Your task to perform on an android device: turn notification dots on Image 0: 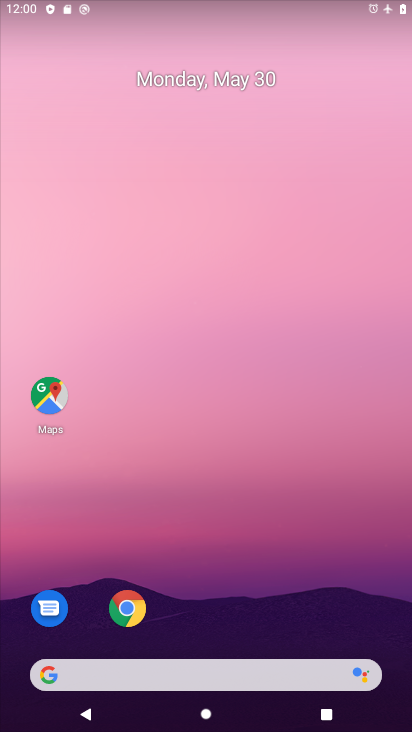
Step 0: drag from (188, 675) to (123, 28)
Your task to perform on an android device: turn notification dots on Image 1: 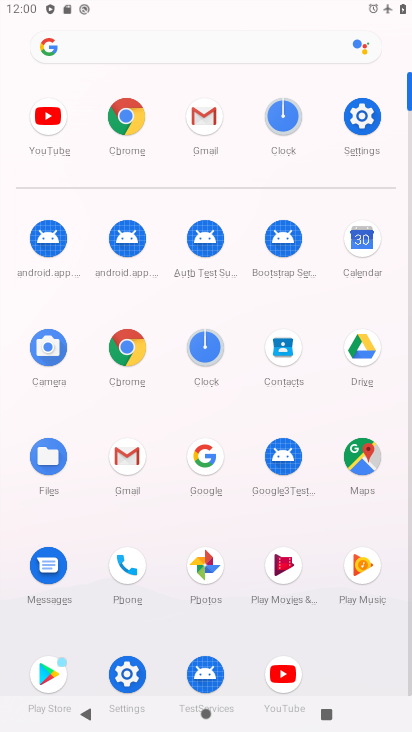
Step 1: click (128, 657)
Your task to perform on an android device: turn notification dots on Image 2: 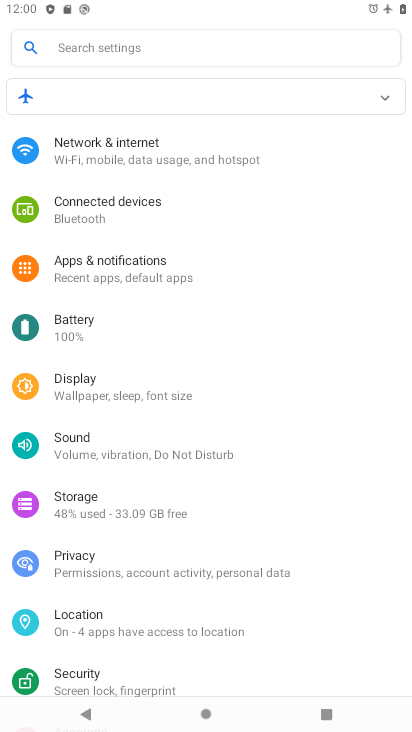
Step 2: click (184, 287)
Your task to perform on an android device: turn notification dots on Image 3: 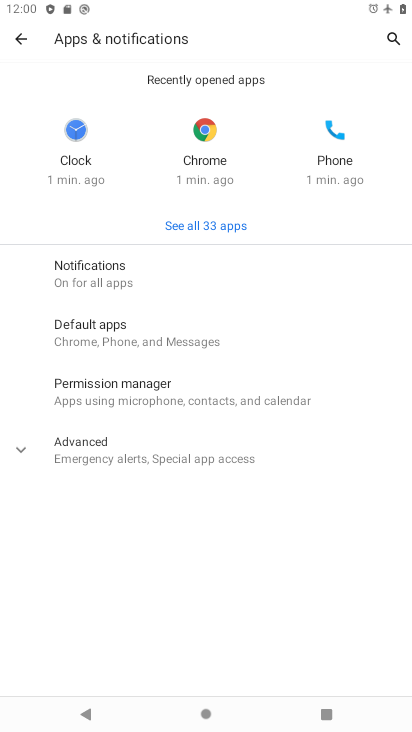
Step 3: drag from (145, 415) to (101, 189)
Your task to perform on an android device: turn notification dots on Image 4: 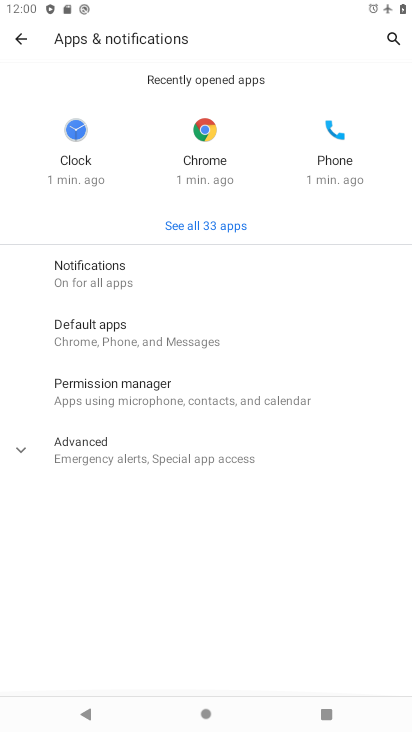
Step 4: click (79, 447)
Your task to perform on an android device: turn notification dots on Image 5: 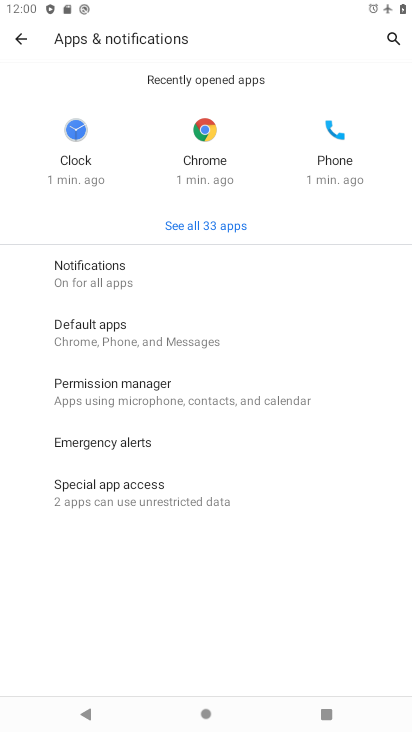
Step 5: drag from (157, 531) to (115, 229)
Your task to perform on an android device: turn notification dots on Image 6: 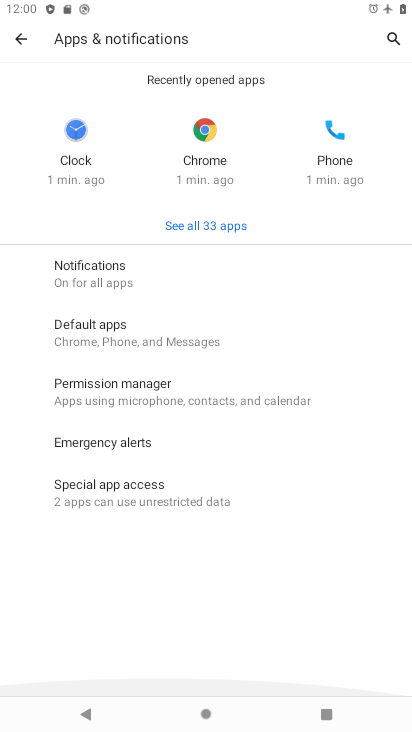
Step 6: click (115, 253)
Your task to perform on an android device: turn notification dots on Image 7: 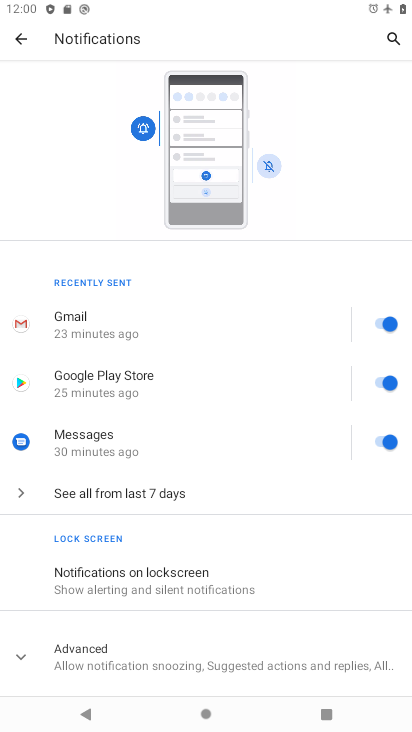
Step 7: drag from (213, 530) to (182, 116)
Your task to perform on an android device: turn notification dots on Image 8: 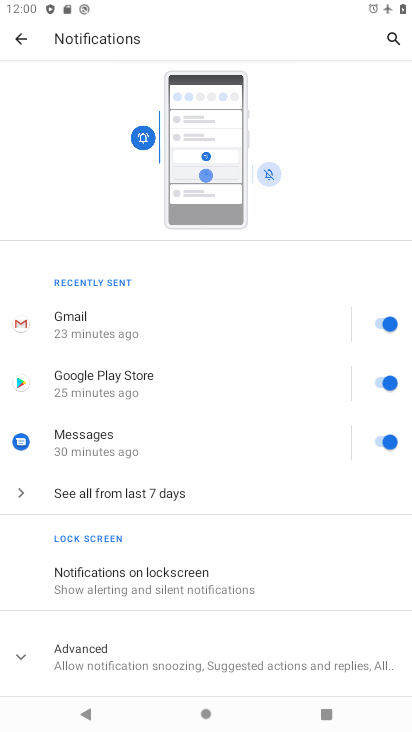
Step 8: click (155, 664)
Your task to perform on an android device: turn notification dots on Image 9: 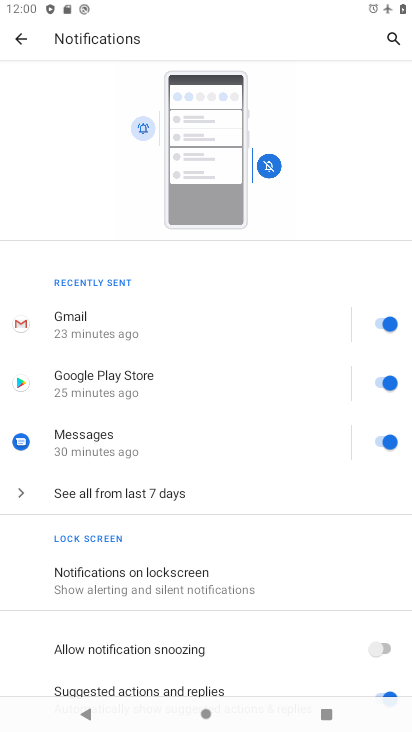
Step 9: task complete